Your task to perform on an android device: What is the recent news? Image 0: 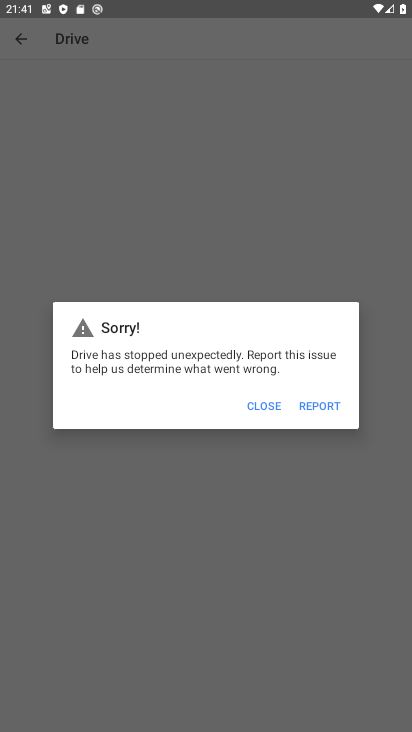
Step 0: press home button
Your task to perform on an android device: What is the recent news? Image 1: 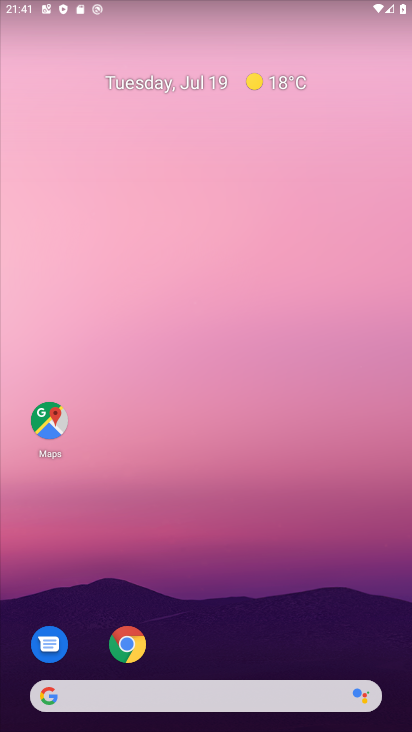
Step 1: task complete